Your task to perform on an android device: allow cookies in the chrome app Image 0: 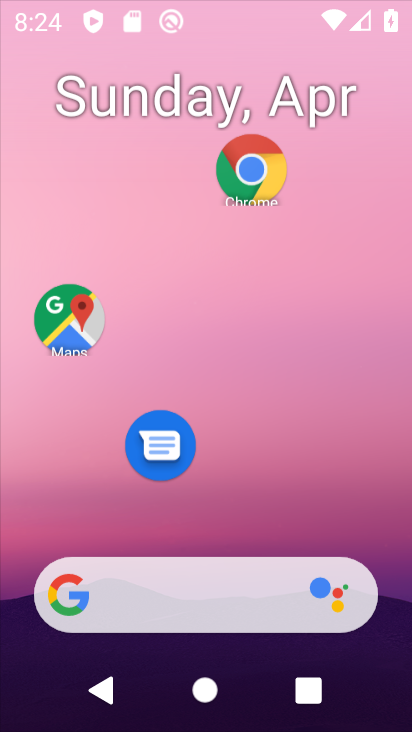
Step 0: click (318, 36)
Your task to perform on an android device: allow cookies in the chrome app Image 1: 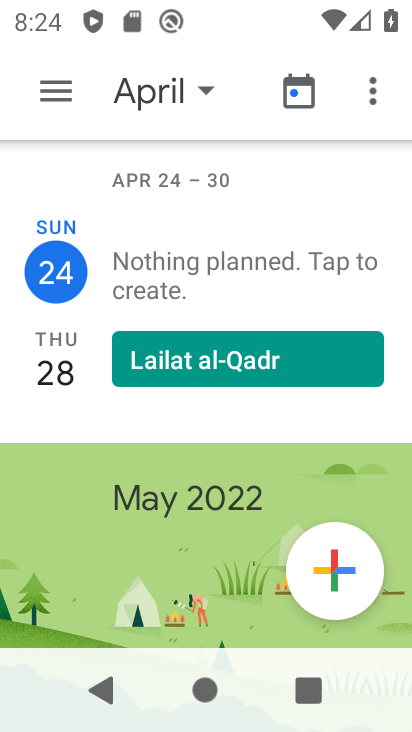
Step 1: press home button
Your task to perform on an android device: allow cookies in the chrome app Image 2: 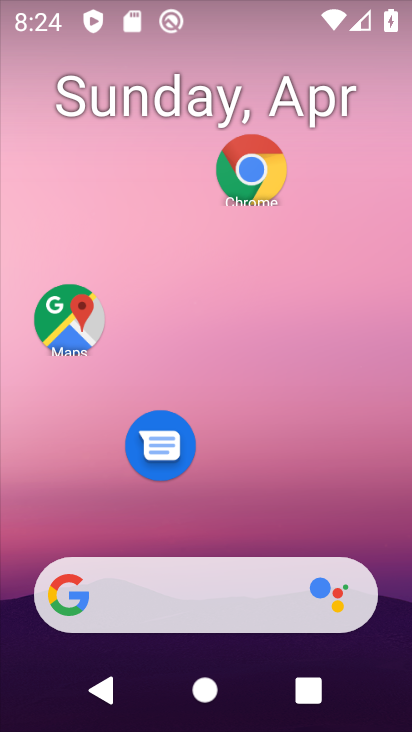
Step 2: click (251, 167)
Your task to perform on an android device: allow cookies in the chrome app Image 3: 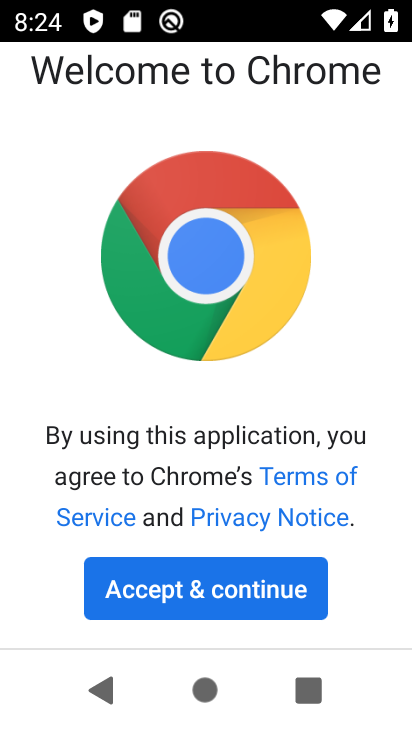
Step 3: click (268, 592)
Your task to perform on an android device: allow cookies in the chrome app Image 4: 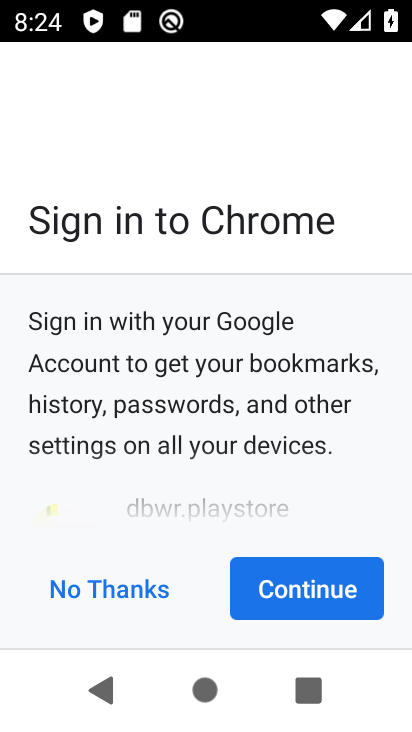
Step 4: click (268, 592)
Your task to perform on an android device: allow cookies in the chrome app Image 5: 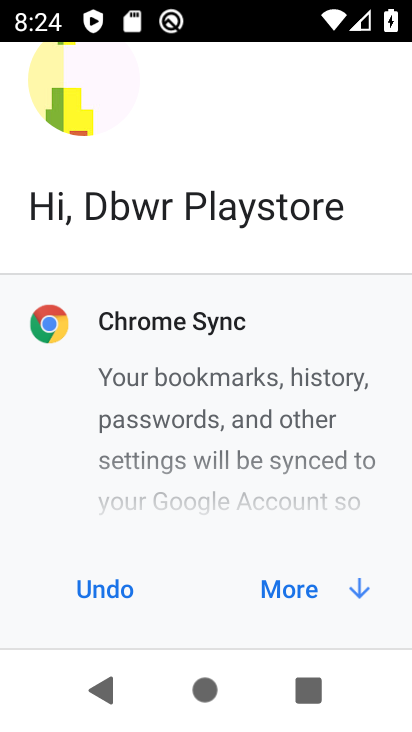
Step 5: click (268, 592)
Your task to perform on an android device: allow cookies in the chrome app Image 6: 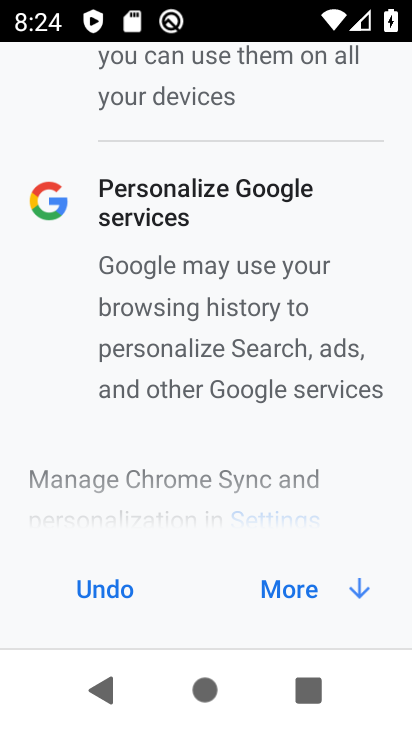
Step 6: click (295, 592)
Your task to perform on an android device: allow cookies in the chrome app Image 7: 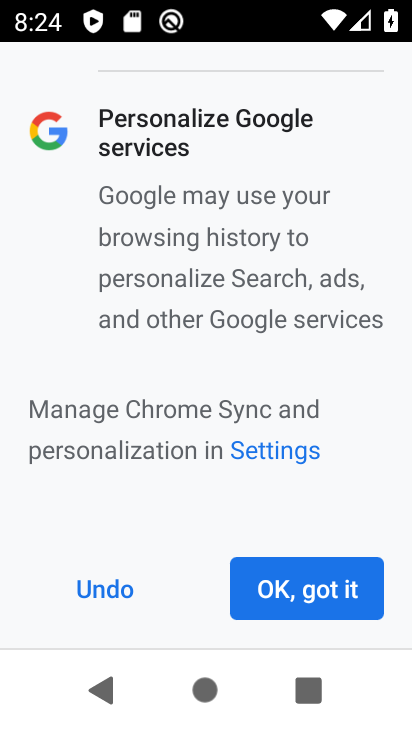
Step 7: click (295, 592)
Your task to perform on an android device: allow cookies in the chrome app Image 8: 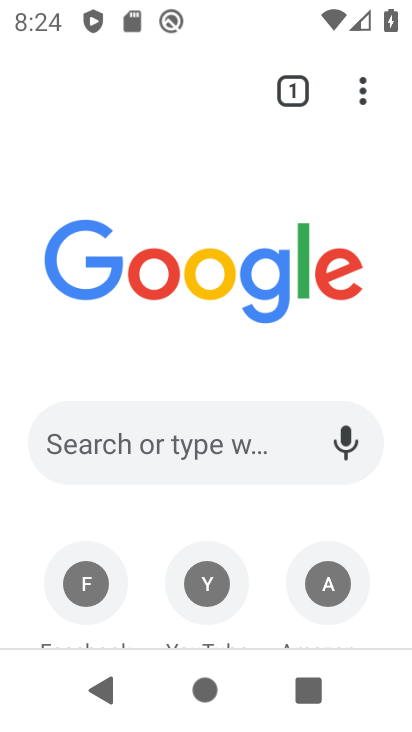
Step 8: click (357, 93)
Your task to perform on an android device: allow cookies in the chrome app Image 9: 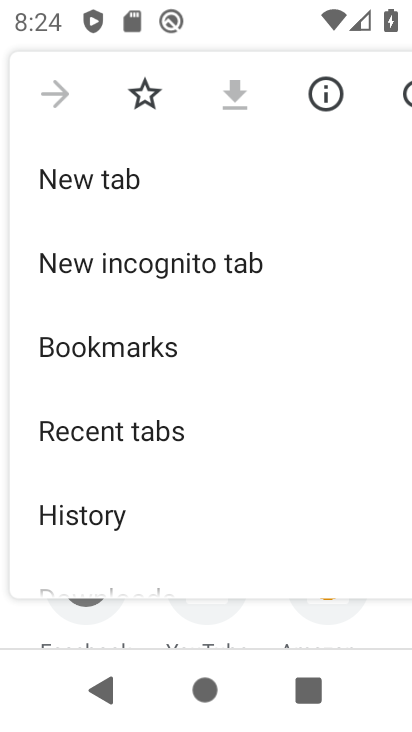
Step 9: drag from (238, 494) to (304, 48)
Your task to perform on an android device: allow cookies in the chrome app Image 10: 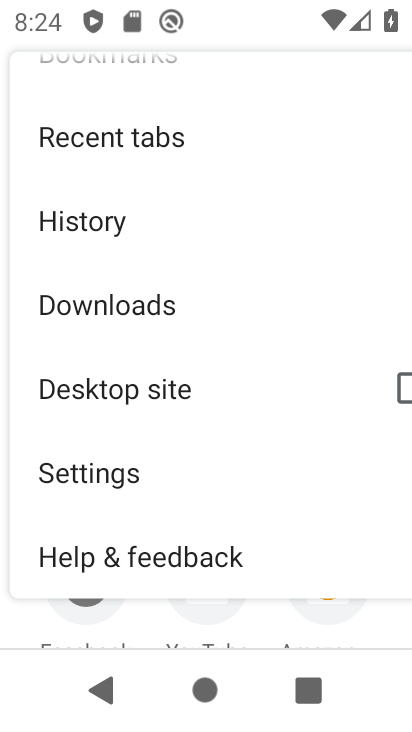
Step 10: click (145, 466)
Your task to perform on an android device: allow cookies in the chrome app Image 11: 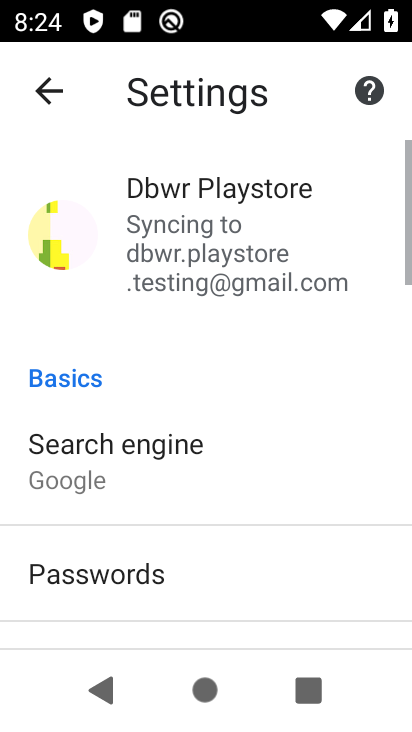
Step 11: drag from (163, 521) to (230, 92)
Your task to perform on an android device: allow cookies in the chrome app Image 12: 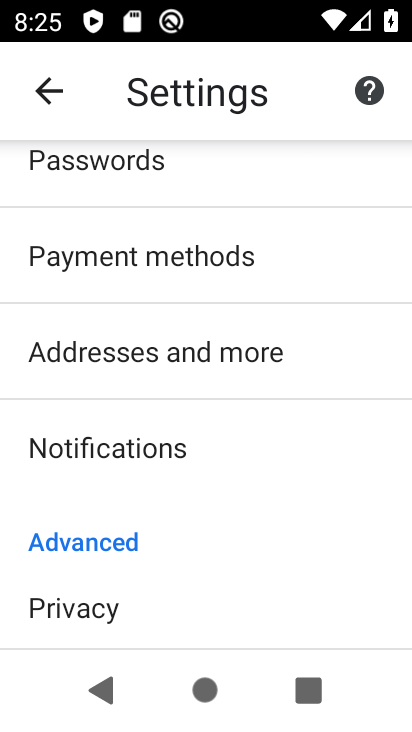
Step 12: drag from (201, 571) to (258, 196)
Your task to perform on an android device: allow cookies in the chrome app Image 13: 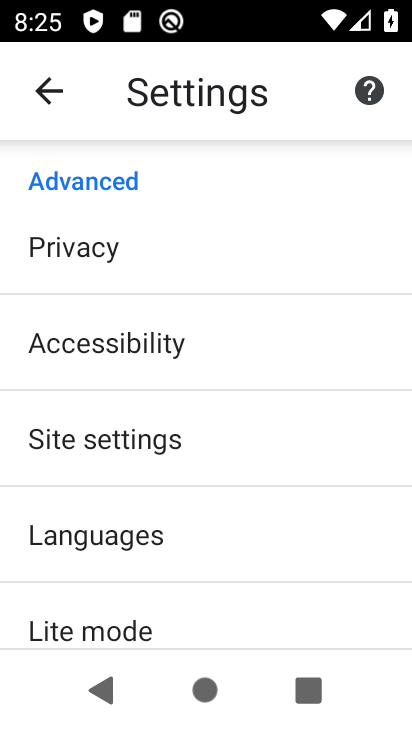
Step 13: click (79, 437)
Your task to perform on an android device: allow cookies in the chrome app Image 14: 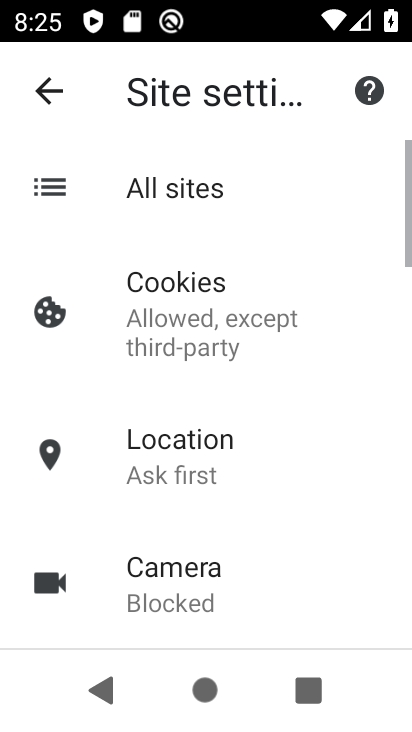
Step 14: click (211, 310)
Your task to perform on an android device: allow cookies in the chrome app Image 15: 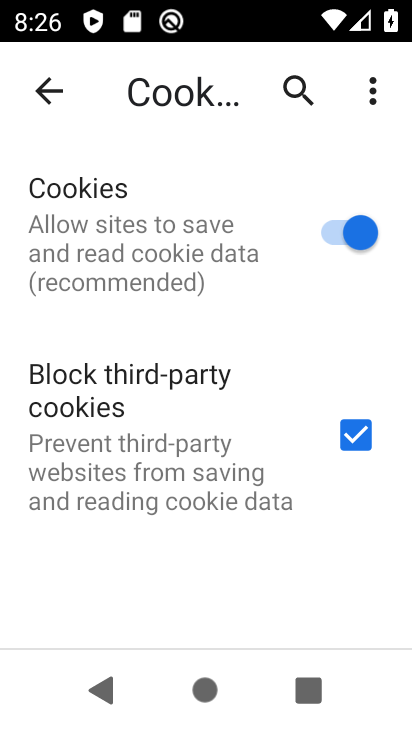
Step 15: task complete